Your task to perform on an android device: delete location history Image 0: 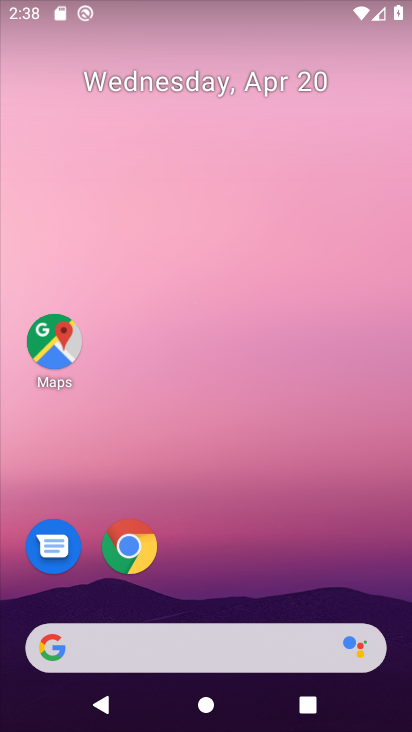
Step 0: drag from (263, 608) to (271, 304)
Your task to perform on an android device: delete location history Image 1: 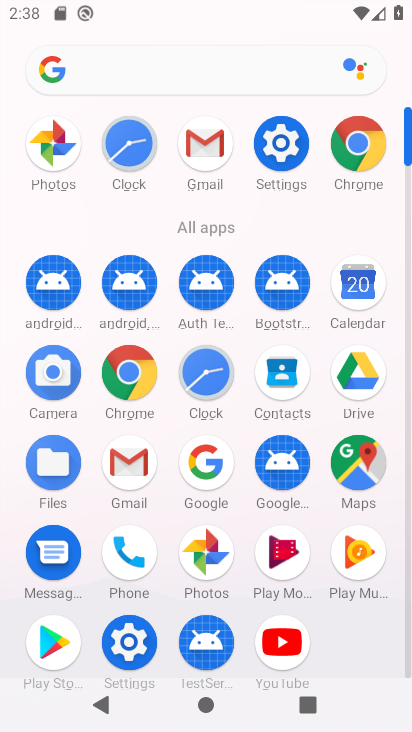
Step 1: click (277, 129)
Your task to perform on an android device: delete location history Image 2: 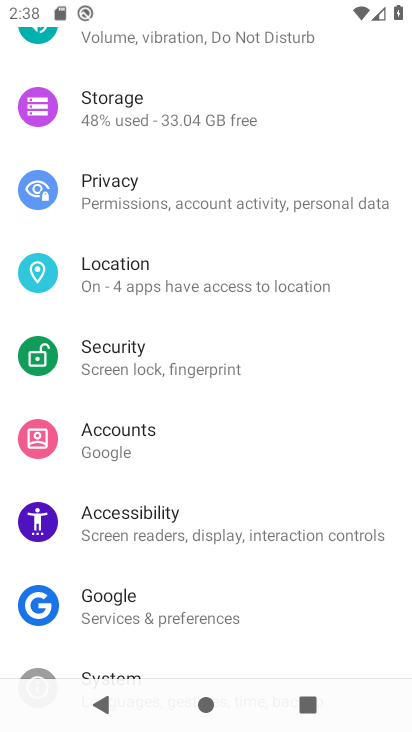
Step 2: drag from (220, 594) to (287, 149)
Your task to perform on an android device: delete location history Image 3: 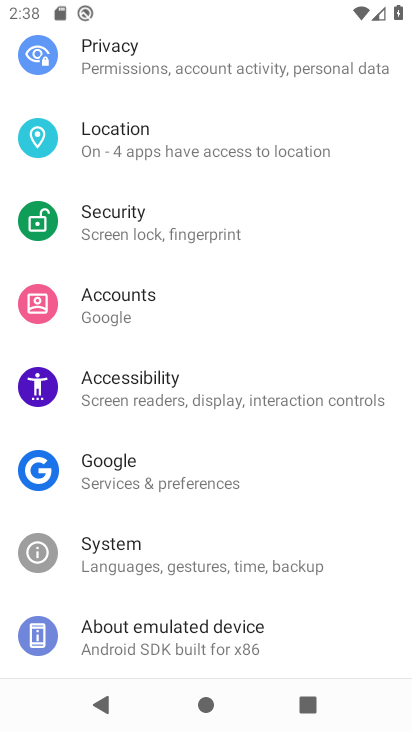
Step 3: click (177, 140)
Your task to perform on an android device: delete location history Image 4: 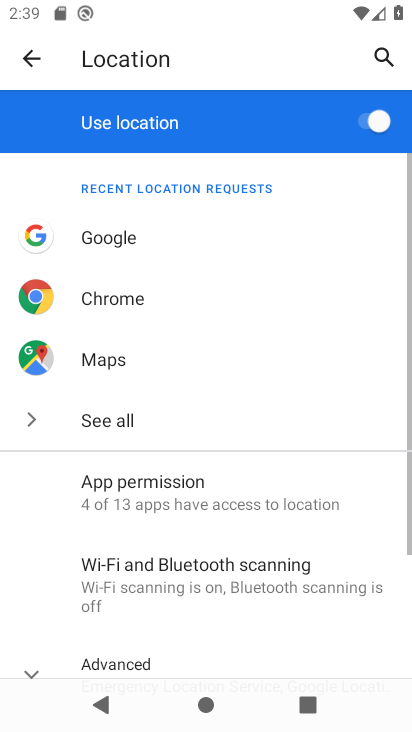
Step 4: drag from (194, 613) to (244, 330)
Your task to perform on an android device: delete location history Image 5: 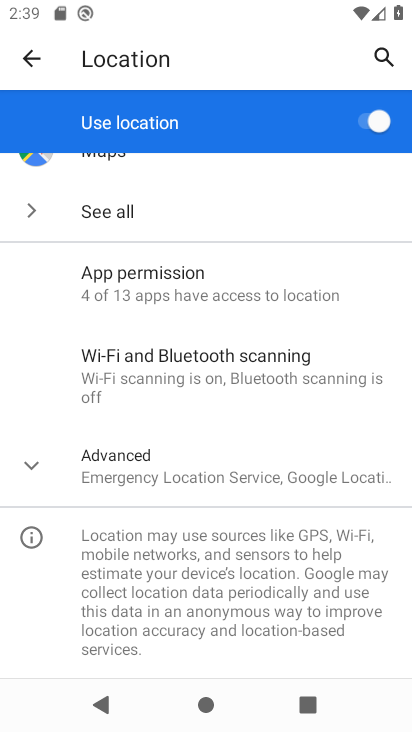
Step 5: click (143, 481)
Your task to perform on an android device: delete location history Image 6: 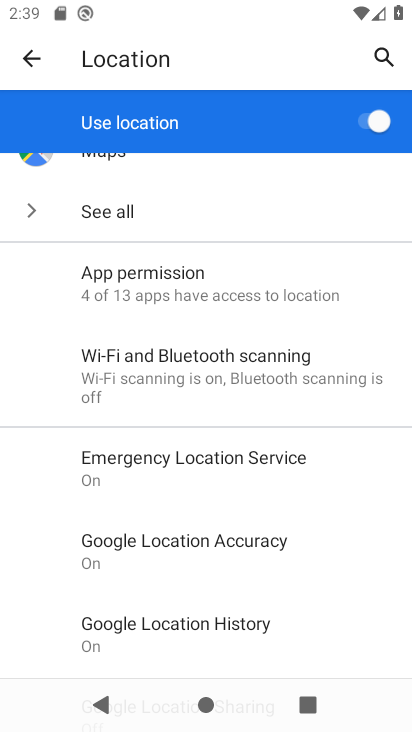
Step 6: drag from (213, 606) to (299, 275)
Your task to perform on an android device: delete location history Image 7: 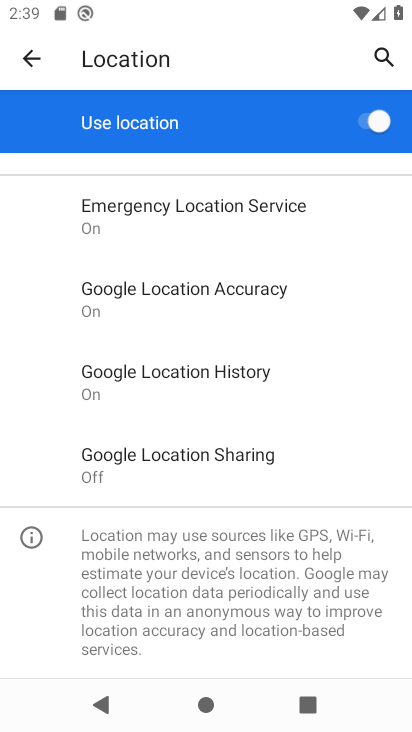
Step 7: click (235, 378)
Your task to perform on an android device: delete location history Image 8: 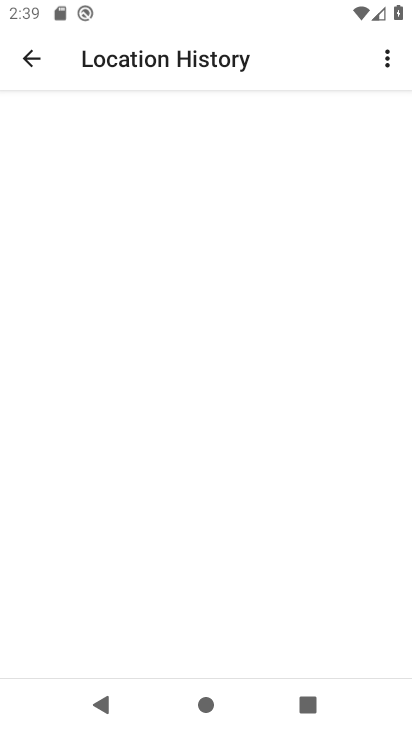
Step 8: click (198, 710)
Your task to perform on an android device: delete location history Image 9: 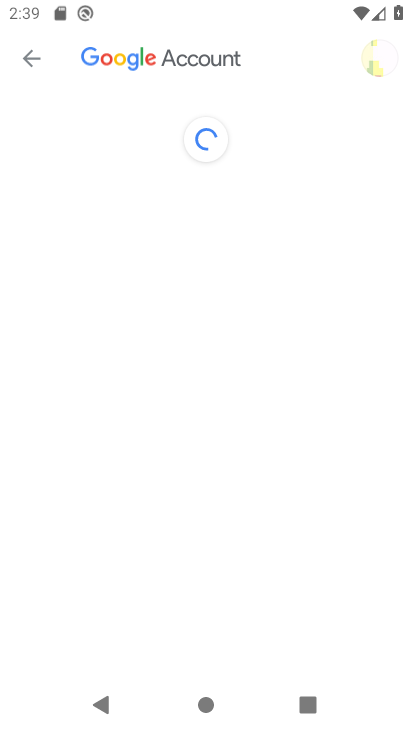
Step 9: click (202, 709)
Your task to perform on an android device: delete location history Image 10: 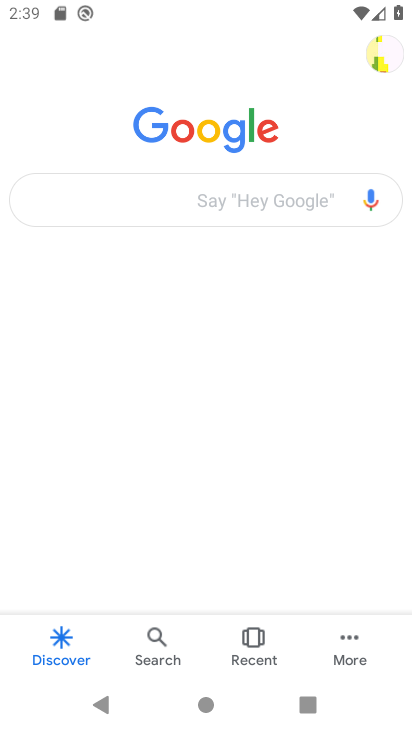
Step 10: press home button
Your task to perform on an android device: delete location history Image 11: 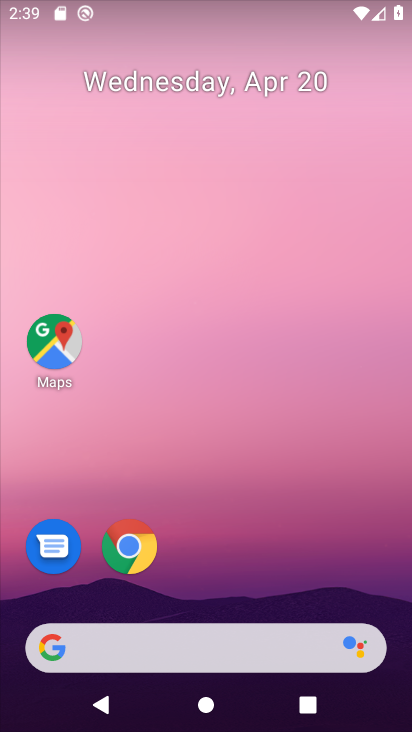
Step 11: drag from (293, 373) to (297, 232)
Your task to perform on an android device: delete location history Image 12: 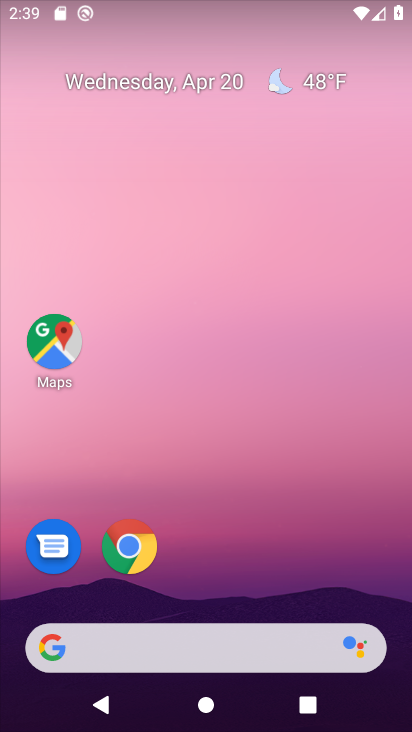
Step 12: drag from (203, 589) to (277, 273)
Your task to perform on an android device: delete location history Image 13: 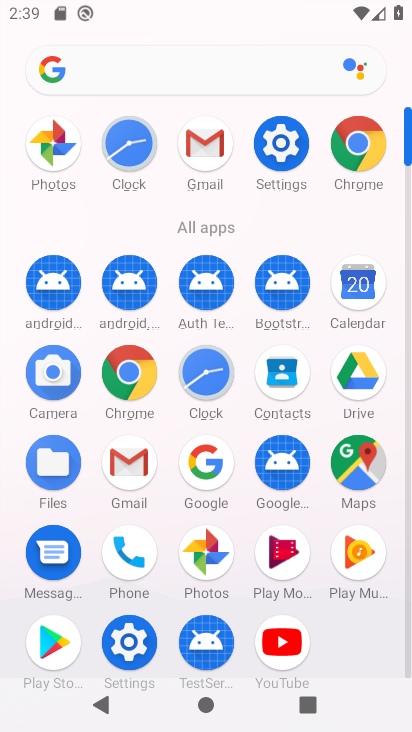
Step 13: click (345, 457)
Your task to perform on an android device: delete location history Image 14: 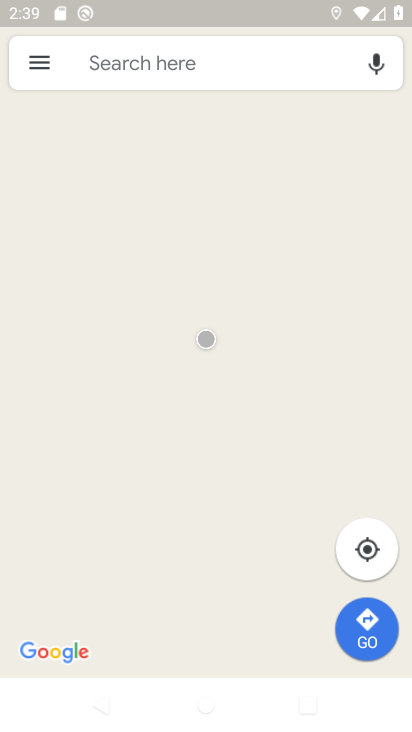
Step 14: click (42, 55)
Your task to perform on an android device: delete location history Image 15: 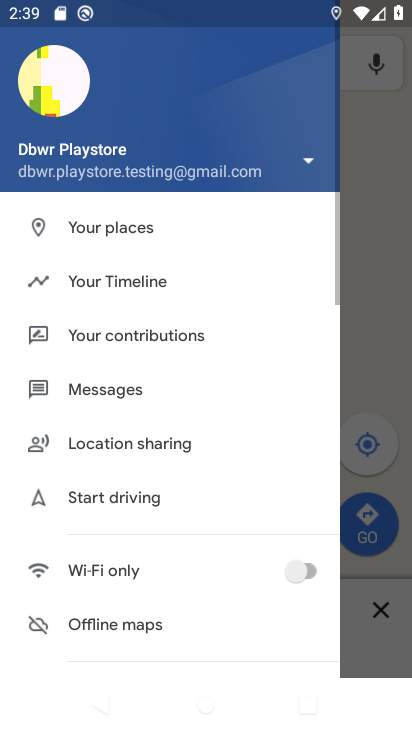
Step 15: click (167, 284)
Your task to perform on an android device: delete location history Image 16: 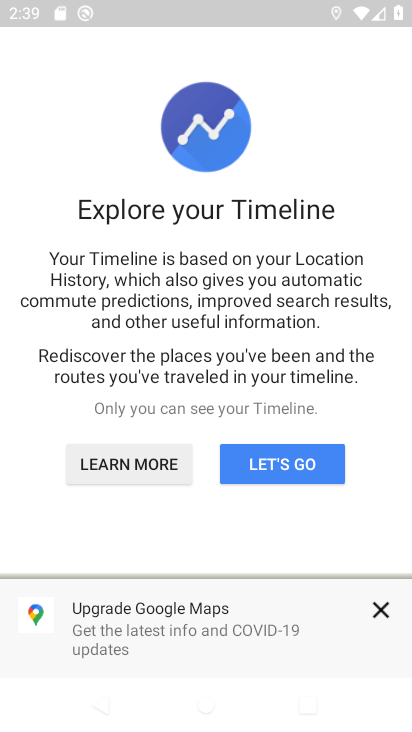
Step 16: click (292, 462)
Your task to perform on an android device: delete location history Image 17: 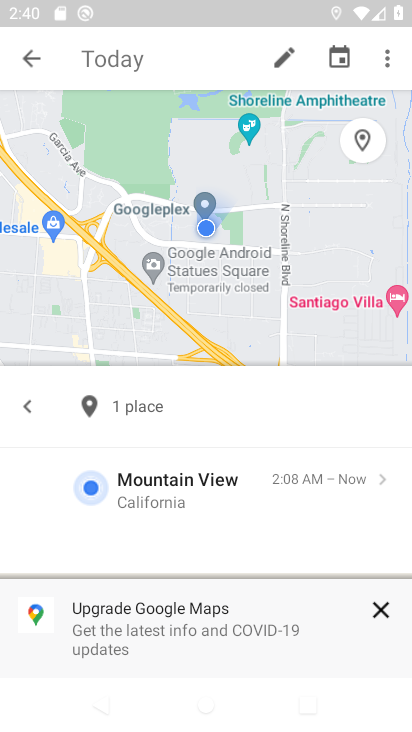
Step 17: click (395, 55)
Your task to perform on an android device: delete location history Image 18: 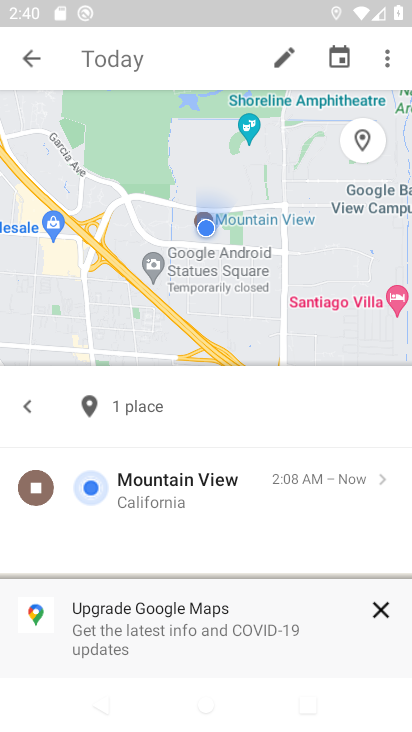
Step 18: click (372, 49)
Your task to perform on an android device: delete location history Image 19: 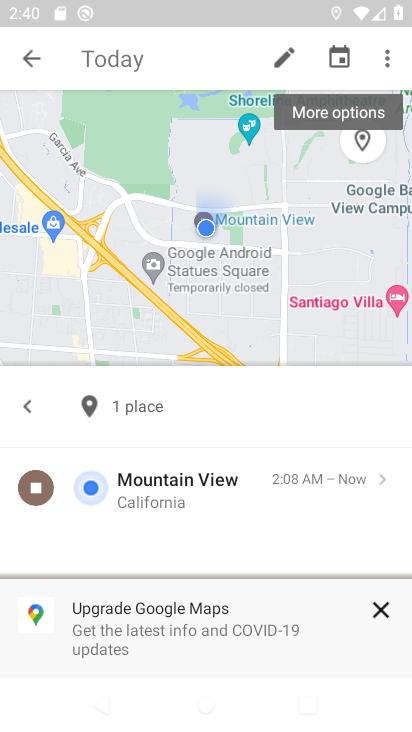
Step 19: click (384, 44)
Your task to perform on an android device: delete location history Image 20: 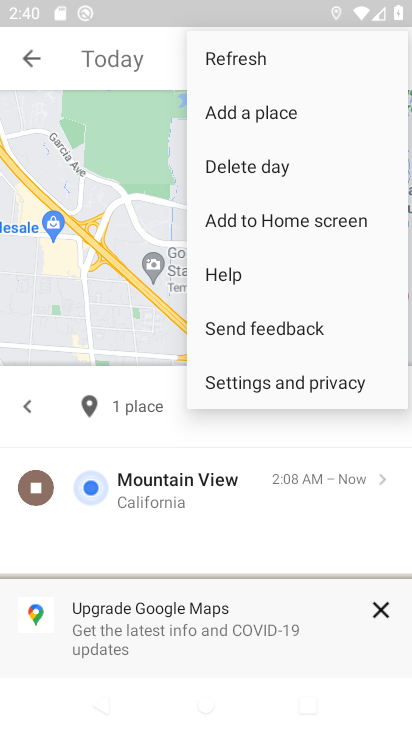
Step 20: click (267, 384)
Your task to perform on an android device: delete location history Image 21: 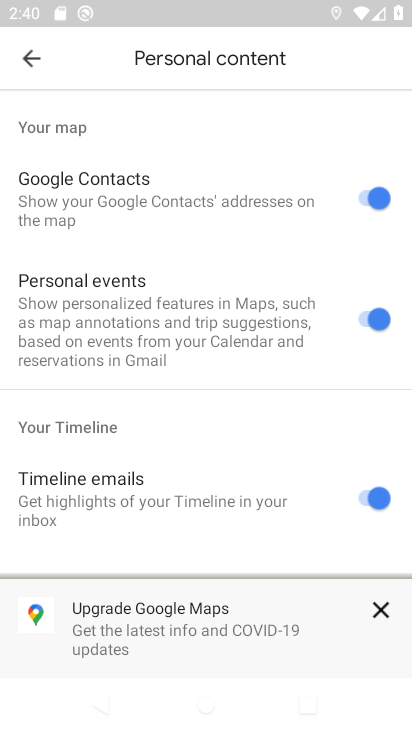
Step 21: click (378, 595)
Your task to perform on an android device: delete location history Image 22: 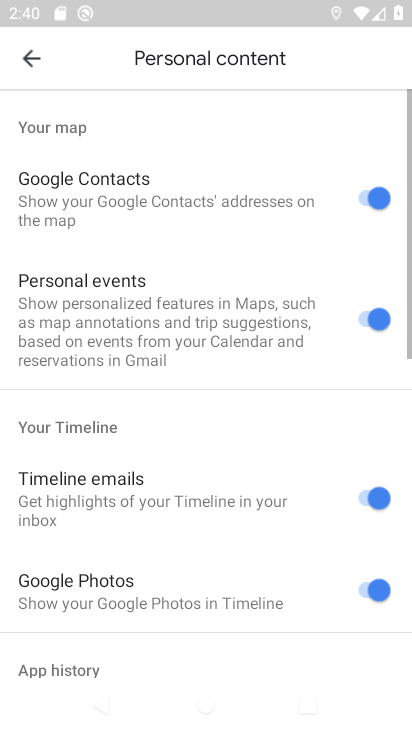
Step 22: drag from (221, 616) to (243, 100)
Your task to perform on an android device: delete location history Image 23: 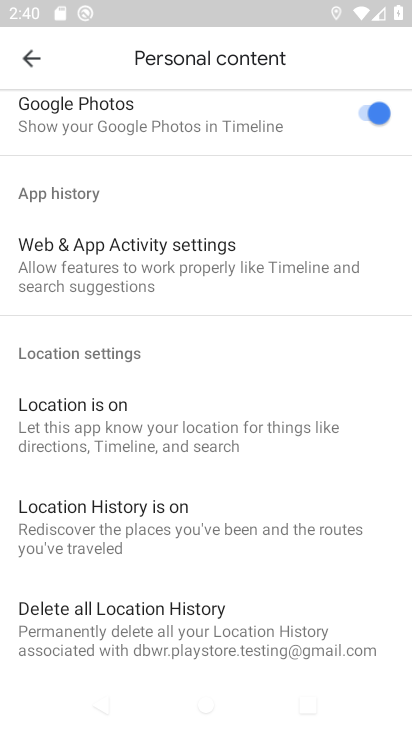
Step 23: drag from (93, 614) to (183, 218)
Your task to perform on an android device: delete location history Image 24: 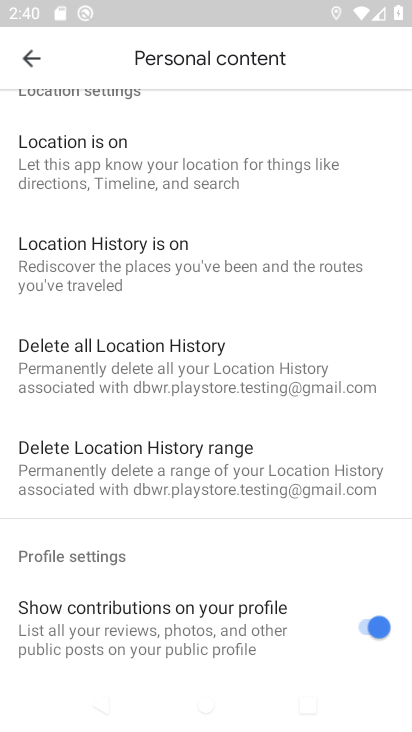
Step 24: click (146, 347)
Your task to perform on an android device: delete location history Image 25: 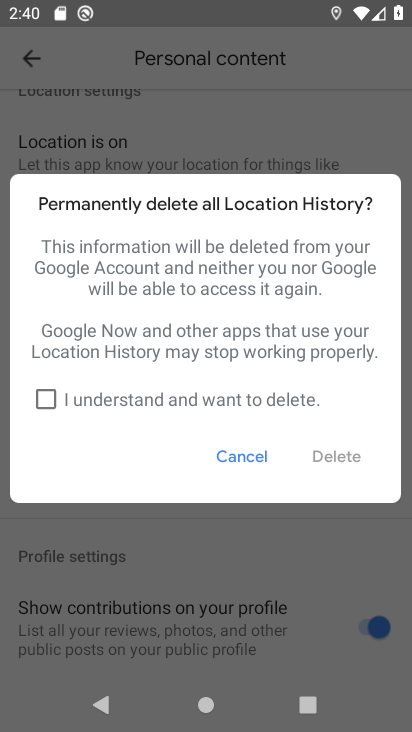
Step 25: click (35, 393)
Your task to perform on an android device: delete location history Image 26: 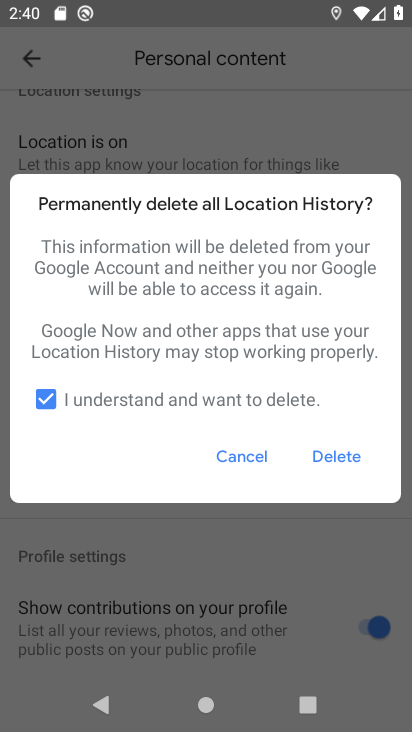
Step 26: click (313, 449)
Your task to perform on an android device: delete location history Image 27: 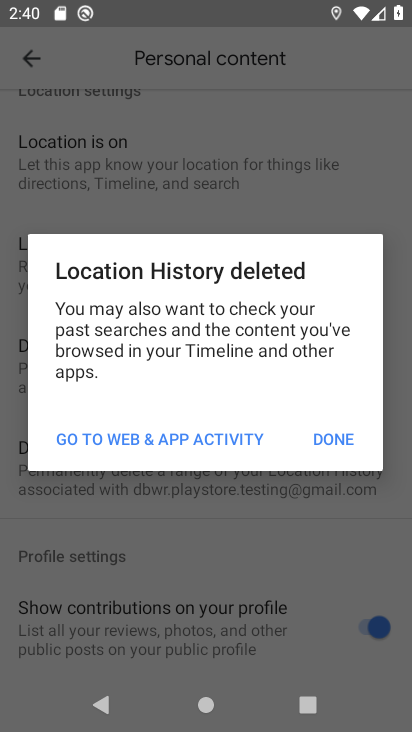
Step 27: task complete